Your task to perform on an android device: Is it going to rain tomorrow? Image 0: 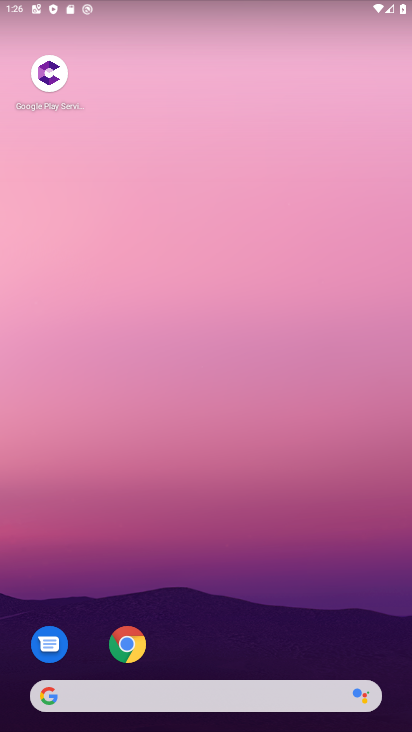
Step 0: click (212, 696)
Your task to perform on an android device: Is it going to rain tomorrow? Image 1: 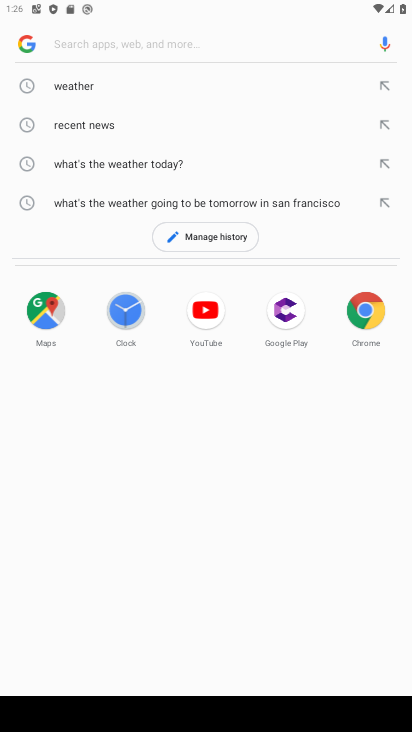
Step 1: type "is it going to rain tomorrow"
Your task to perform on an android device: Is it going to rain tomorrow? Image 2: 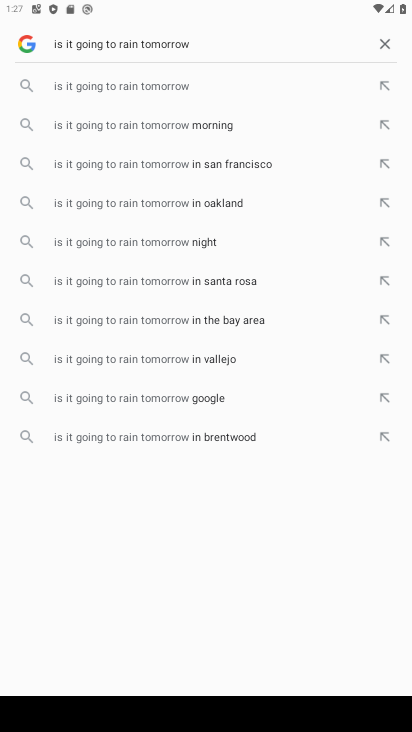
Step 2: click (192, 87)
Your task to perform on an android device: Is it going to rain tomorrow? Image 3: 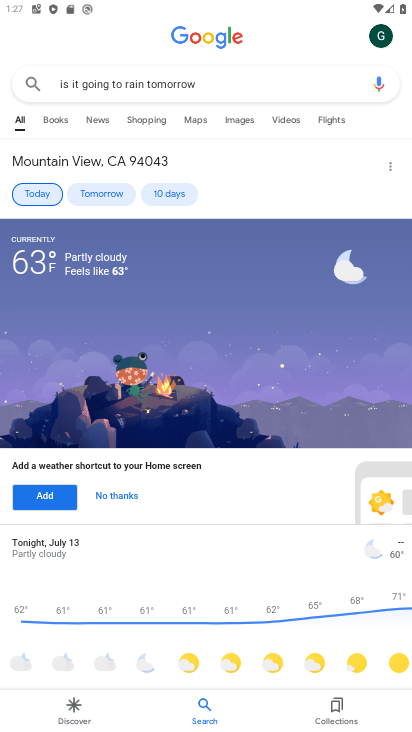
Step 3: click (108, 190)
Your task to perform on an android device: Is it going to rain tomorrow? Image 4: 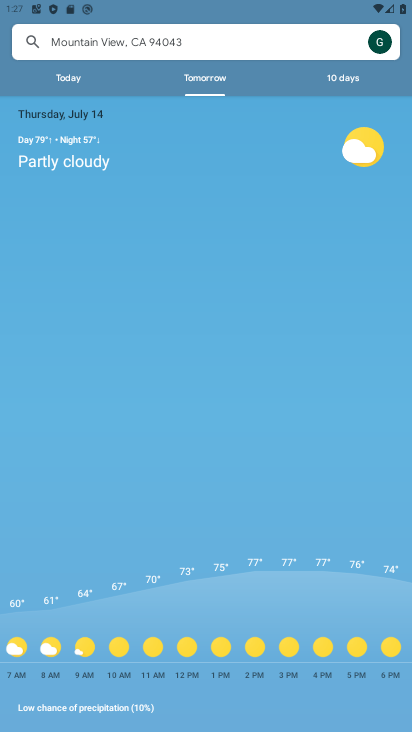
Step 4: task complete